Your task to perform on an android device: Open Youtube and go to the subscriptions tab Image 0: 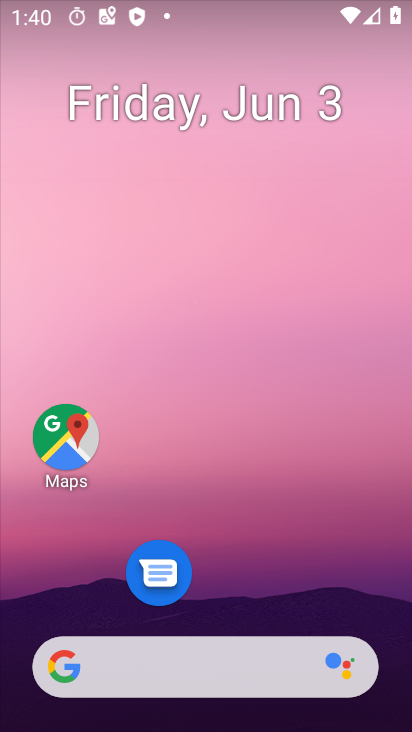
Step 0: drag from (128, 669) to (285, 6)
Your task to perform on an android device: Open Youtube and go to the subscriptions tab Image 1: 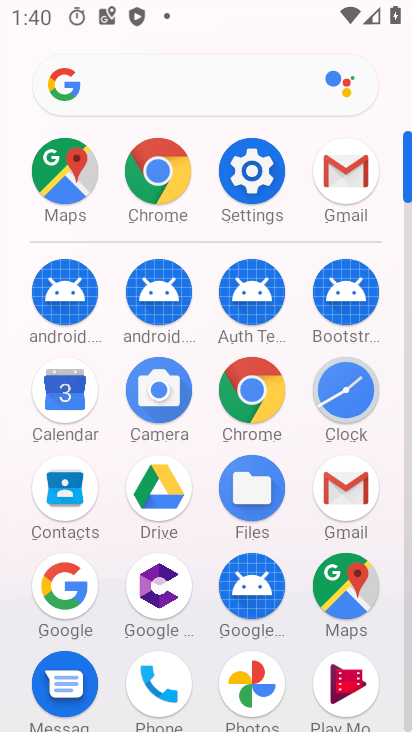
Step 1: drag from (318, 619) to (281, 243)
Your task to perform on an android device: Open Youtube and go to the subscriptions tab Image 2: 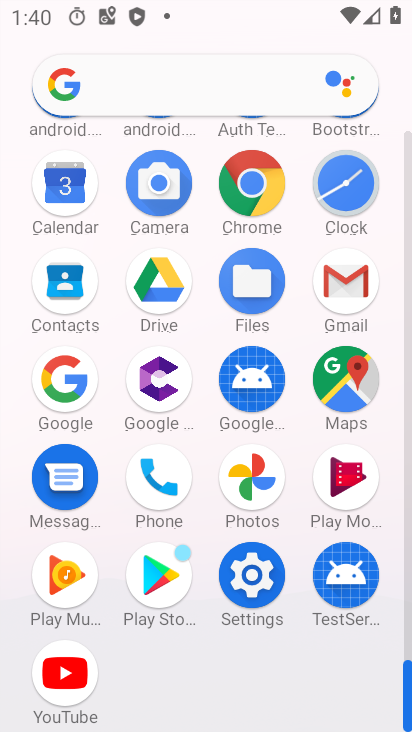
Step 2: click (90, 682)
Your task to perform on an android device: Open Youtube and go to the subscriptions tab Image 3: 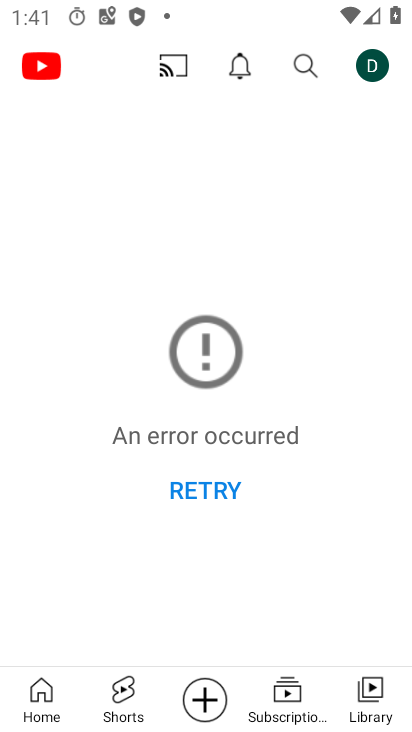
Step 3: click (278, 688)
Your task to perform on an android device: Open Youtube and go to the subscriptions tab Image 4: 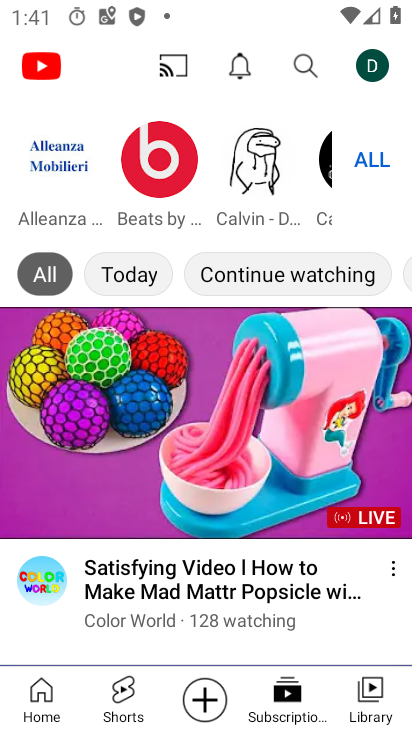
Step 4: task complete